Your task to perform on an android device: Find coffee shops on Maps Image 0: 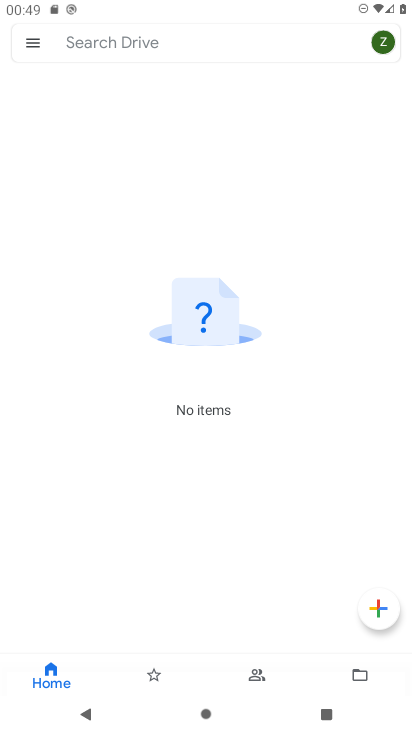
Step 0: press home button
Your task to perform on an android device: Find coffee shops on Maps Image 1: 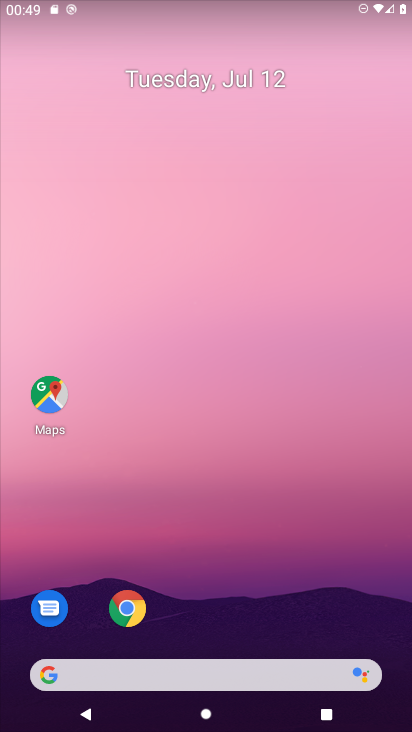
Step 1: drag from (230, 647) to (336, 17)
Your task to perform on an android device: Find coffee shops on Maps Image 2: 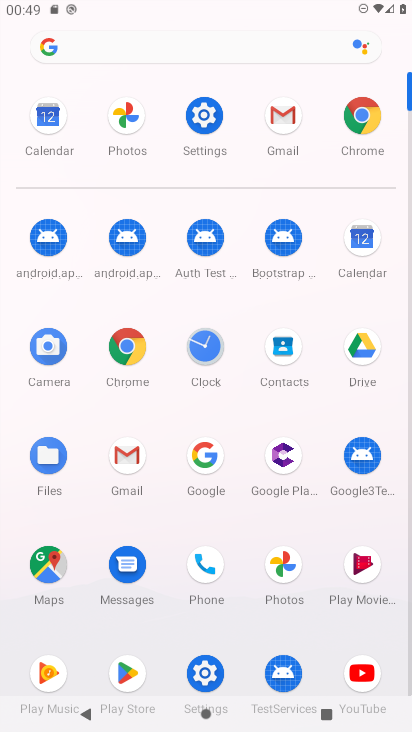
Step 2: click (41, 560)
Your task to perform on an android device: Find coffee shops on Maps Image 3: 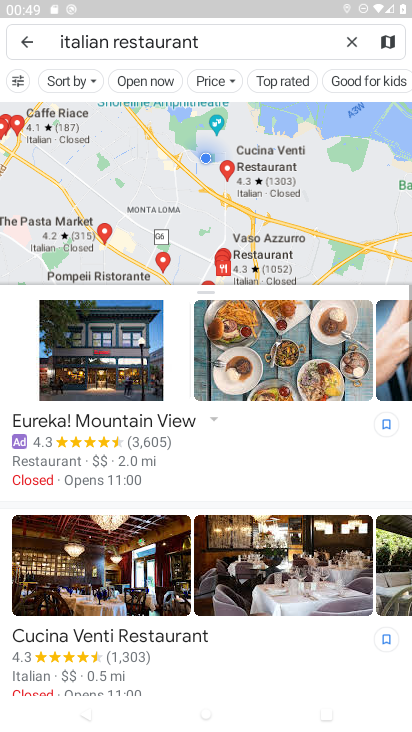
Step 3: click (348, 41)
Your task to perform on an android device: Find coffee shops on Maps Image 4: 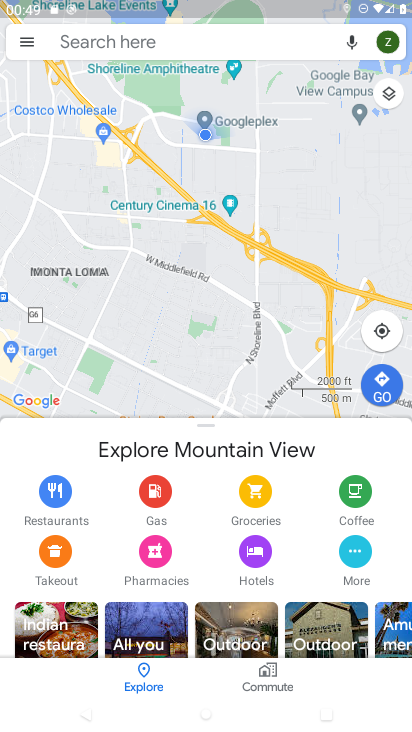
Step 4: click (217, 42)
Your task to perform on an android device: Find coffee shops on Maps Image 5: 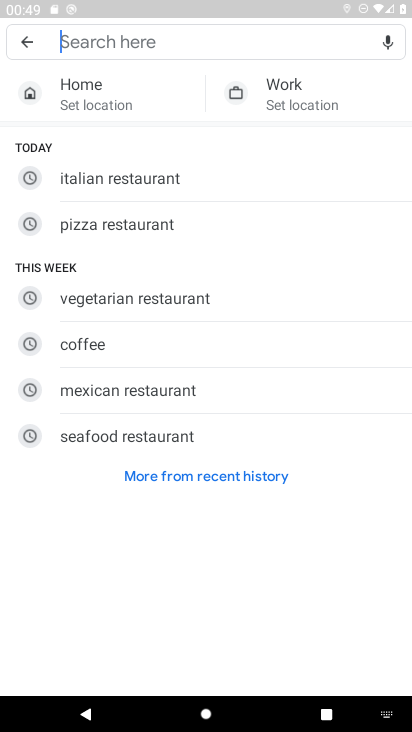
Step 5: click (95, 334)
Your task to perform on an android device: Find coffee shops on Maps Image 6: 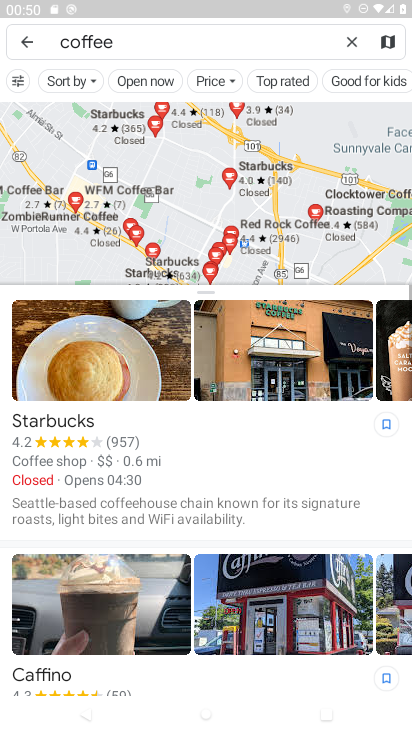
Step 6: task complete